Your task to perform on an android device: Search for Mexican restaurants on Maps Image 0: 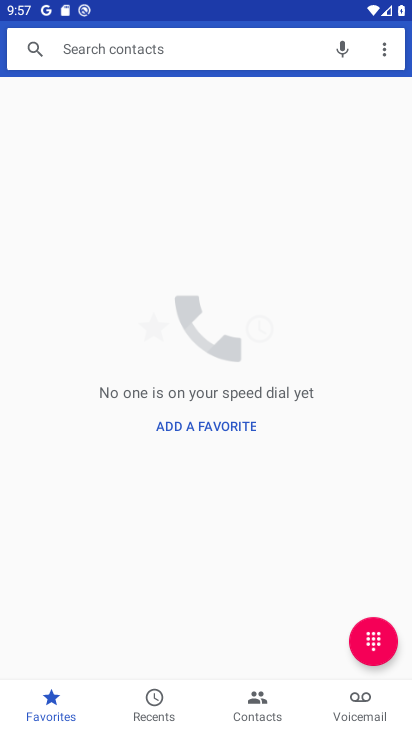
Step 0: press home button
Your task to perform on an android device: Search for Mexican restaurants on Maps Image 1: 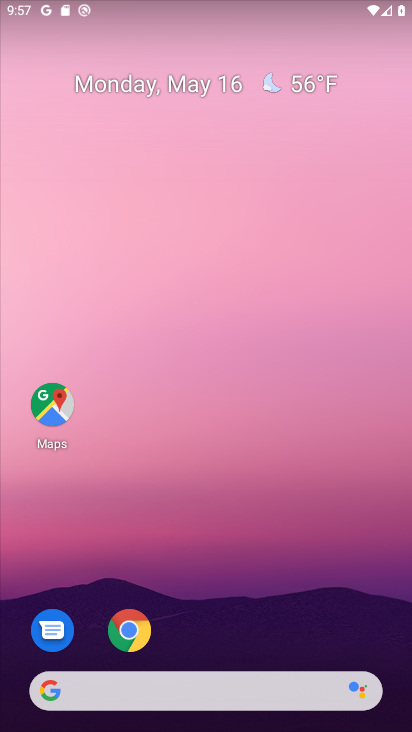
Step 1: click (45, 401)
Your task to perform on an android device: Search for Mexican restaurants on Maps Image 2: 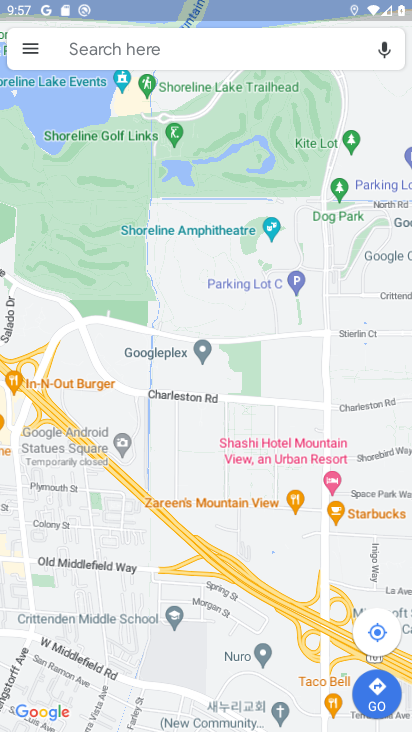
Step 2: click (249, 44)
Your task to perform on an android device: Search for Mexican restaurants on Maps Image 3: 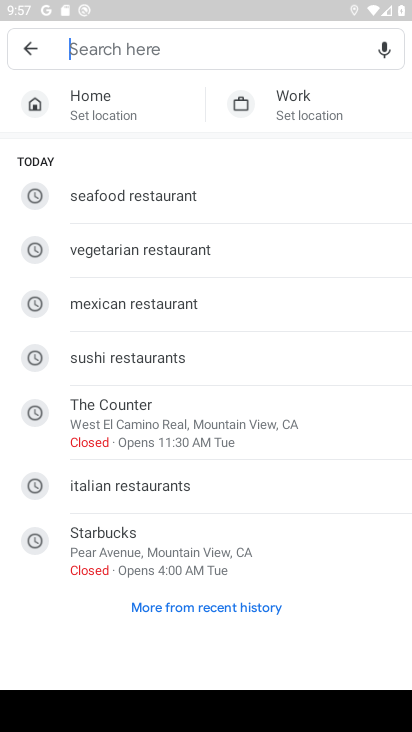
Step 3: click (166, 292)
Your task to perform on an android device: Search for Mexican restaurants on Maps Image 4: 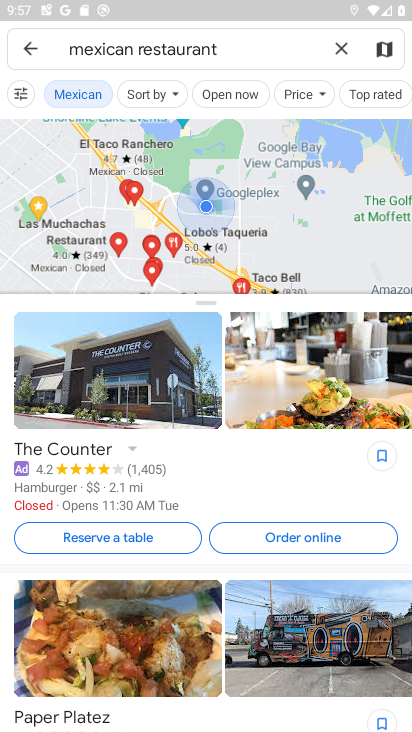
Step 4: task complete